Your task to perform on an android device: toggle pop-ups in chrome Image 0: 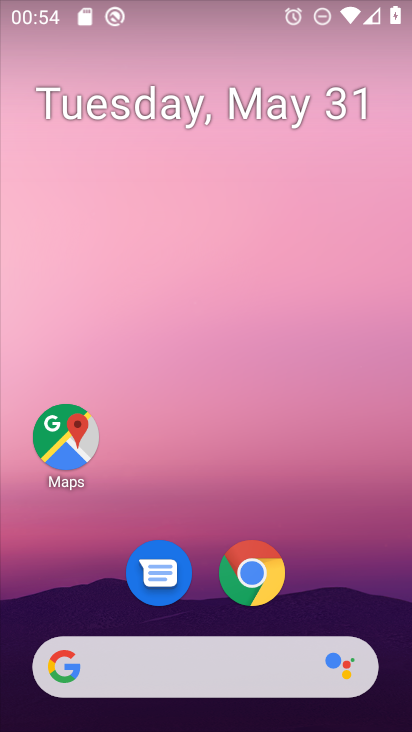
Step 0: click (265, 565)
Your task to perform on an android device: toggle pop-ups in chrome Image 1: 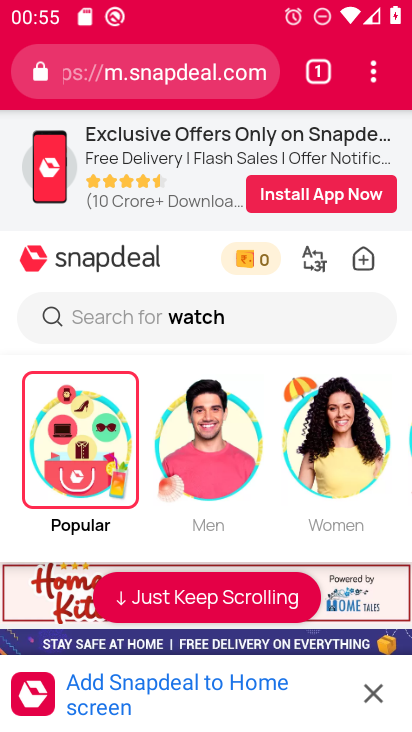
Step 1: click (384, 62)
Your task to perform on an android device: toggle pop-ups in chrome Image 2: 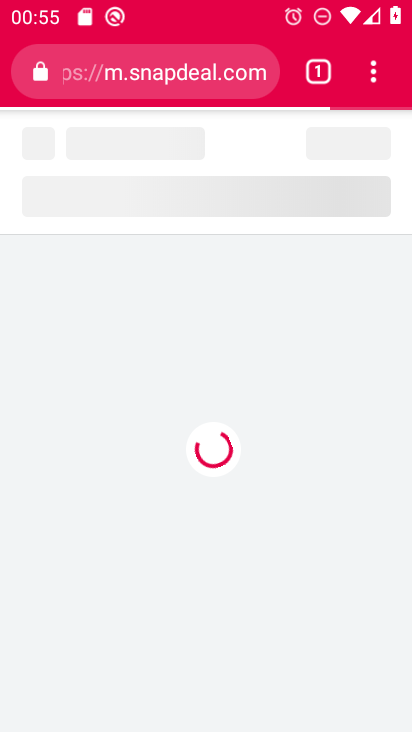
Step 2: click (374, 73)
Your task to perform on an android device: toggle pop-ups in chrome Image 3: 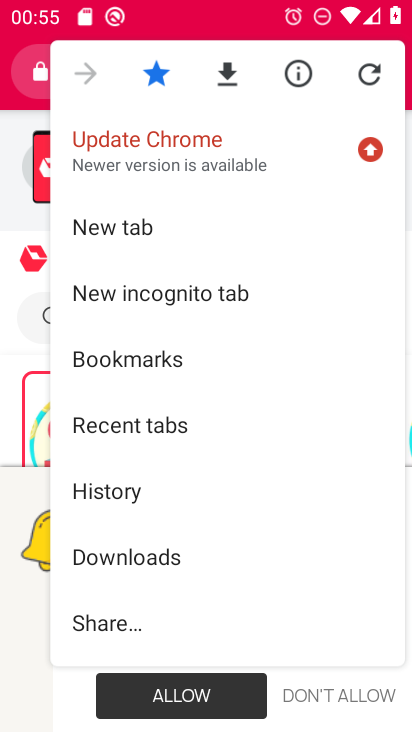
Step 3: drag from (183, 609) to (34, 28)
Your task to perform on an android device: toggle pop-ups in chrome Image 4: 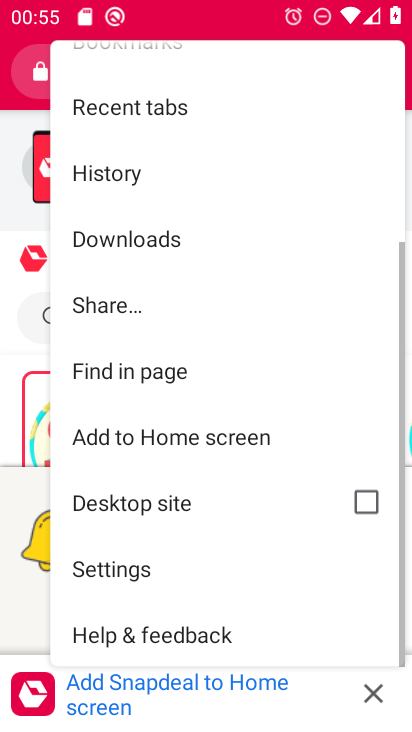
Step 4: click (129, 560)
Your task to perform on an android device: toggle pop-ups in chrome Image 5: 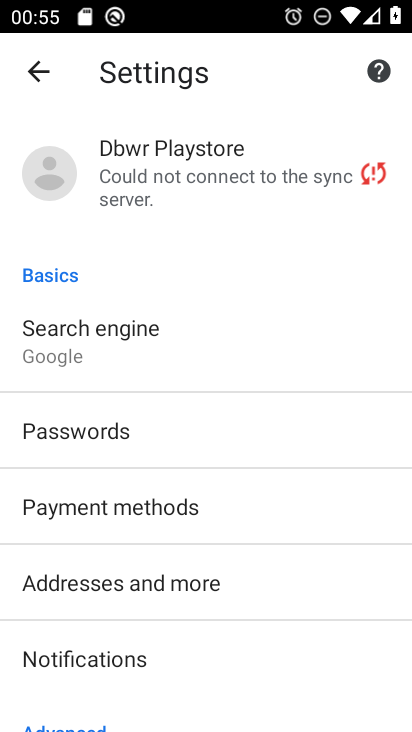
Step 5: drag from (257, 682) to (192, 84)
Your task to perform on an android device: toggle pop-ups in chrome Image 6: 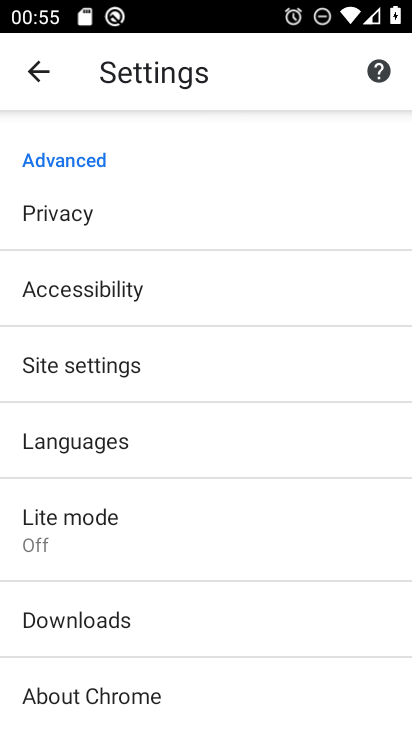
Step 6: click (127, 363)
Your task to perform on an android device: toggle pop-ups in chrome Image 7: 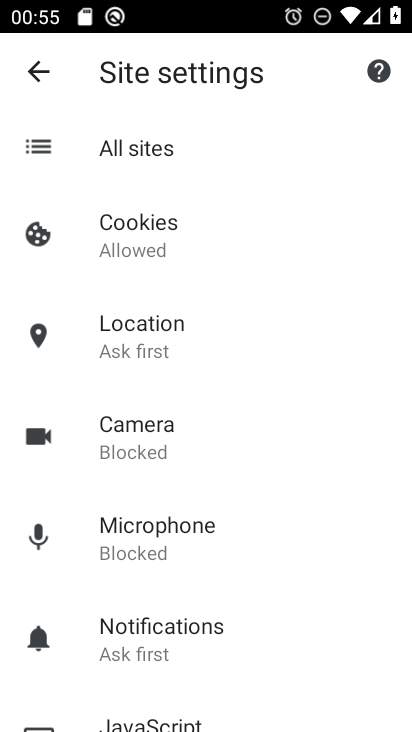
Step 7: drag from (212, 675) to (238, 123)
Your task to perform on an android device: toggle pop-ups in chrome Image 8: 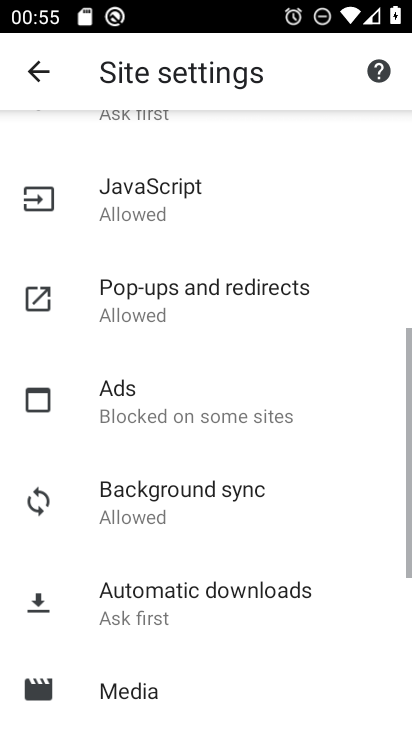
Step 8: click (260, 297)
Your task to perform on an android device: toggle pop-ups in chrome Image 9: 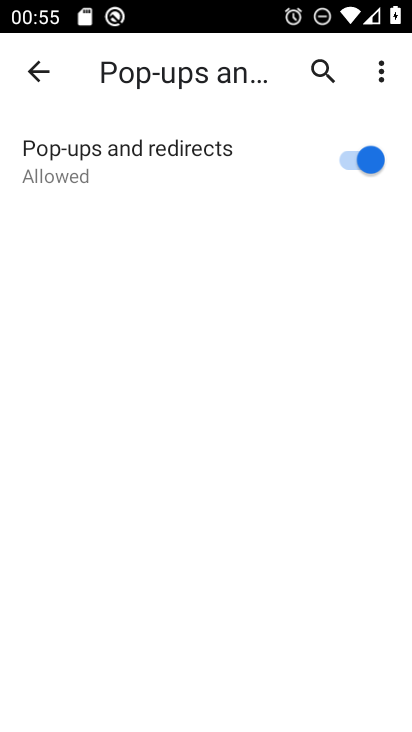
Step 9: click (378, 157)
Your task to perform on an android device: toggle pop-ups in chrome Image 10: 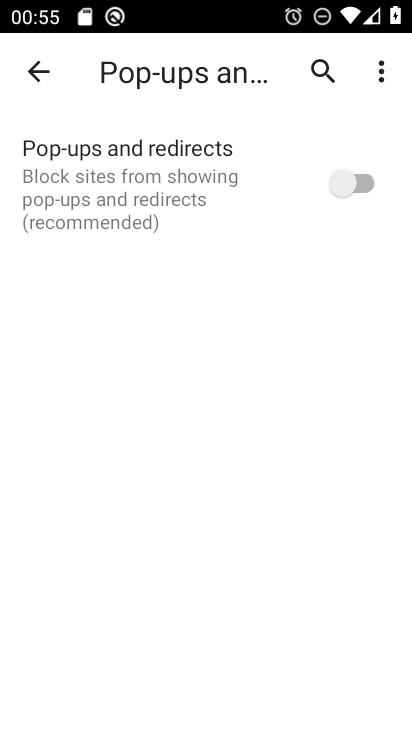
Step 10: task complete